Your task to perform on an android device: Open internet settings Image 0: 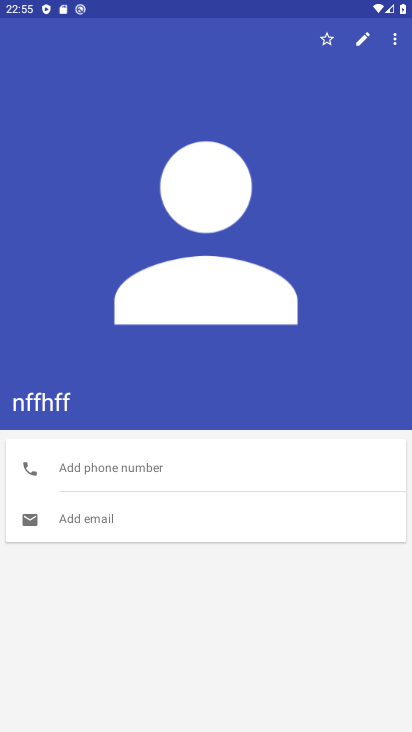
Step 0: press home button
Your task to perform on an android device: Open internet settings Image 1: 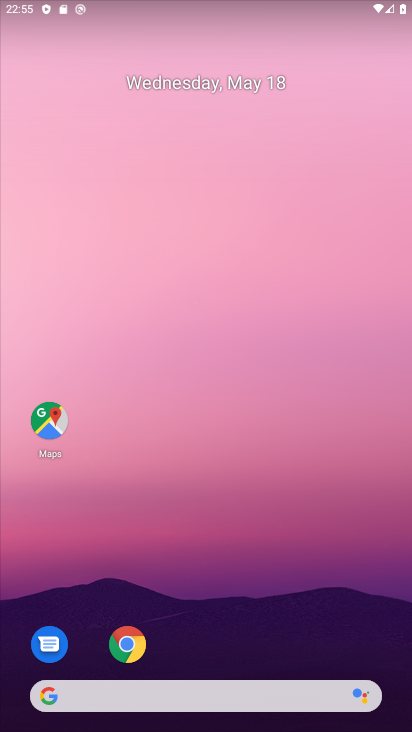
Step 1: drag from (300, 613) to (257, 193)
Your task to perform on an android device: Open internet settings Image 2: 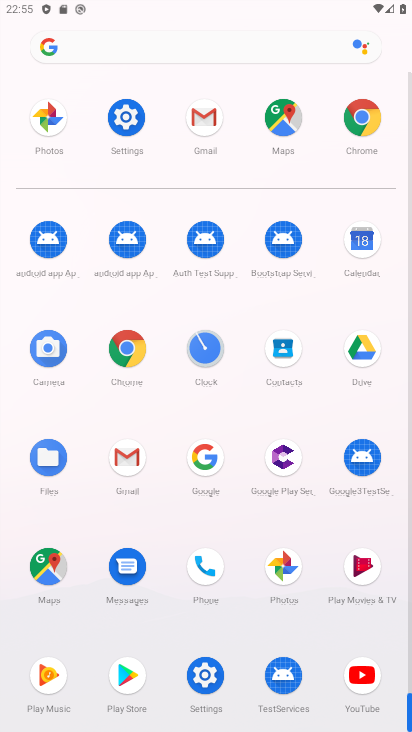
Step 2: click (131, 127)
Your task to perform on an android device: Open internet settings Image 3: 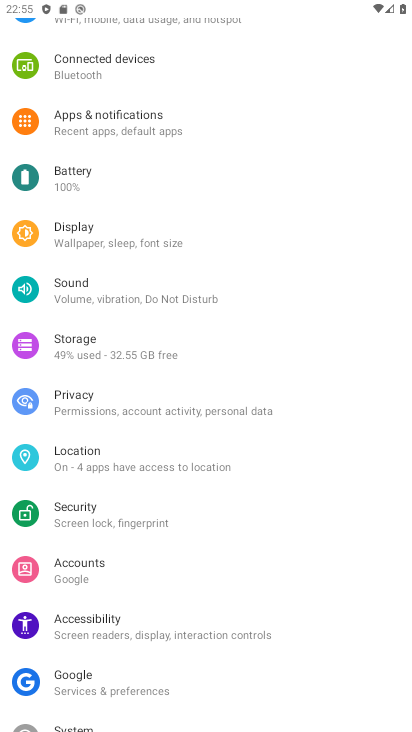
Step 3: drag from (182, 103) to (253, 573)
Your task to perform on an android device: Open internet settings Image 4: 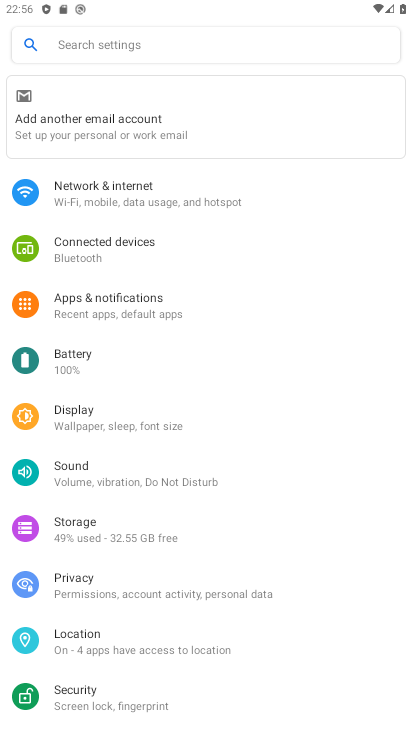
Step 4: click (184, 192)
Your task to perform on an android device: Open internet settings Image 5: 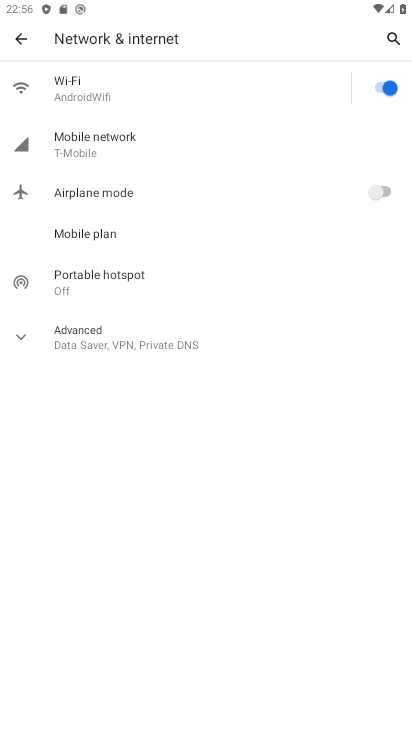
Step 5: task complete